Your task to perform on an android device: install app "DuckDuckGo Privacy Browser" Image 0: 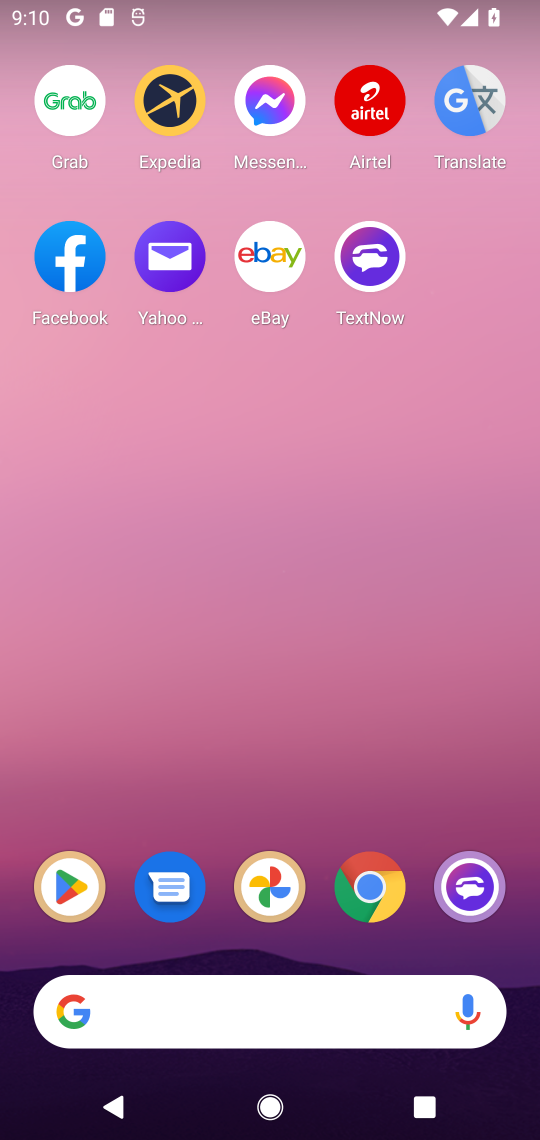
Step 0: click (69, 874)
Your task to perform on an android device: install app "DuckDuckGo Privacy Browser" Image 1: 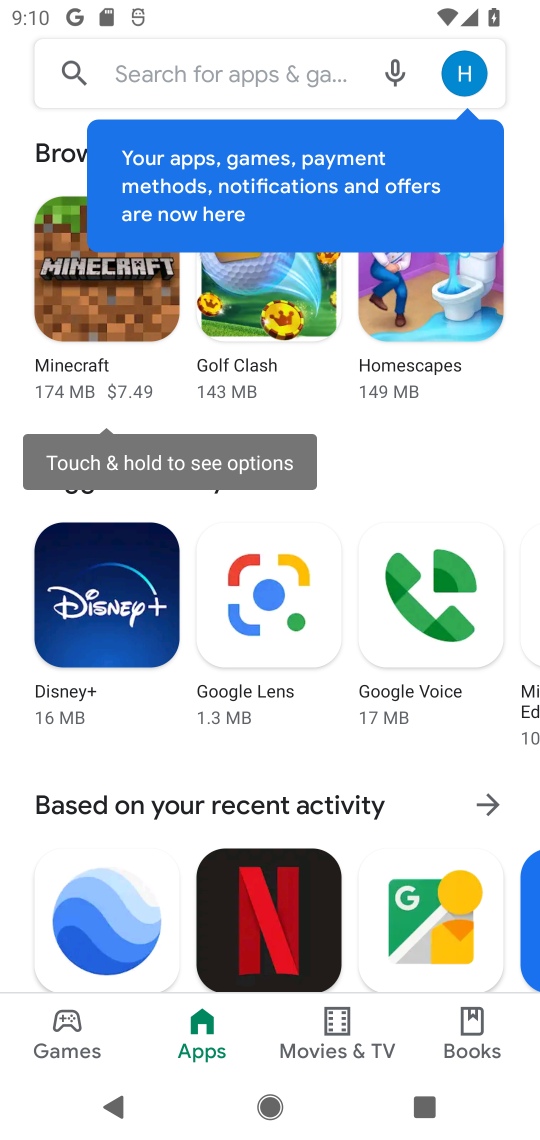
Step 1: click (221, 86)
Your task to perform on an android device: install app "DuckDuckGo Privacy Browser" Image 2: 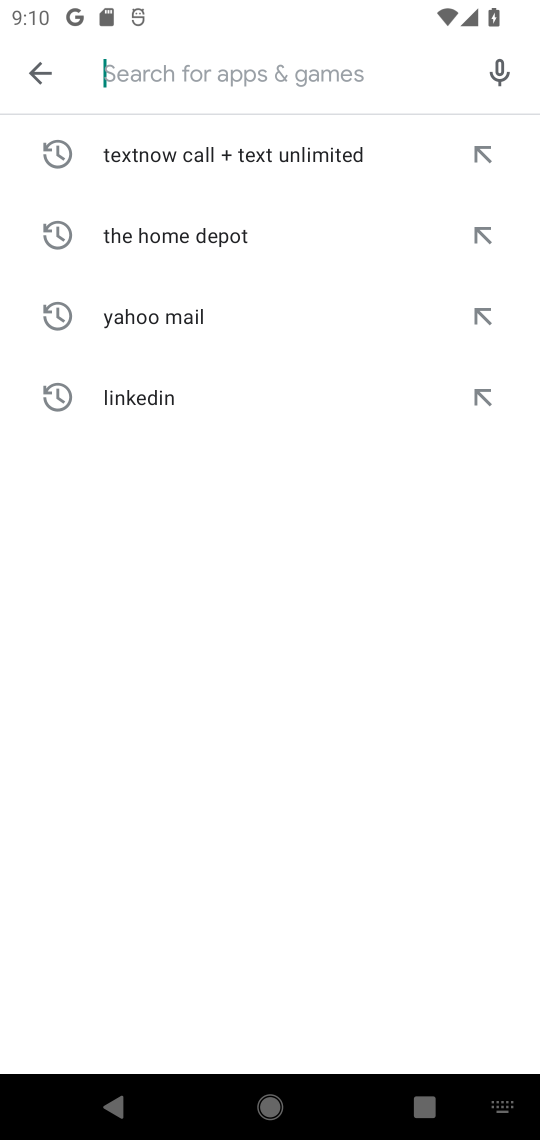
Step 2: type "DuckDuckGo privacy browser"
Your task to perform on an android device: install app "DuckDuckGo Privacy Browser" Image 3: 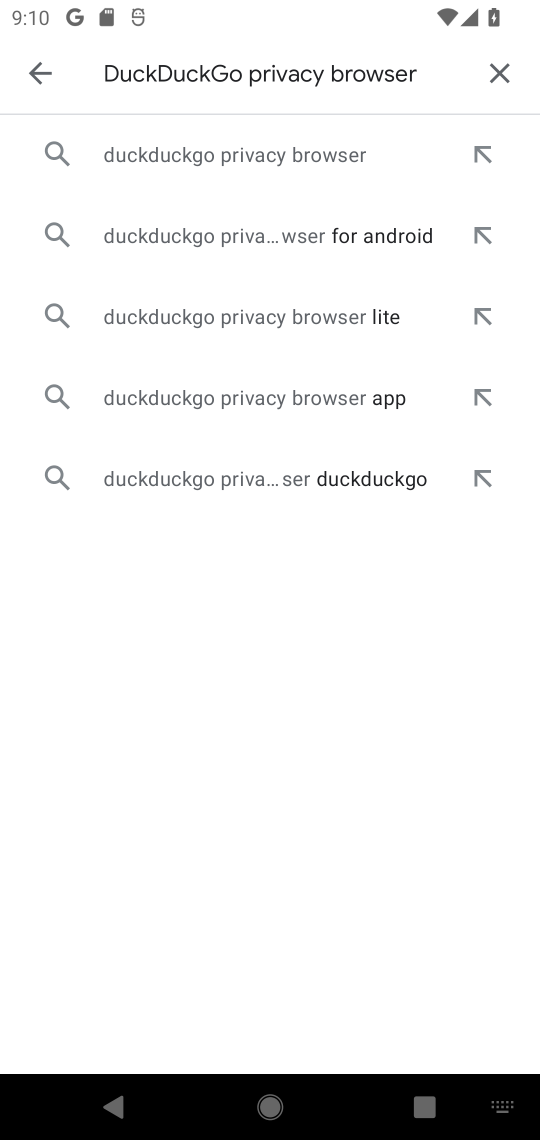
Step 3: click (196, 161)
Your task to perform on an android device: install app "DuckDuckGo Privacy Browser" Image 4: 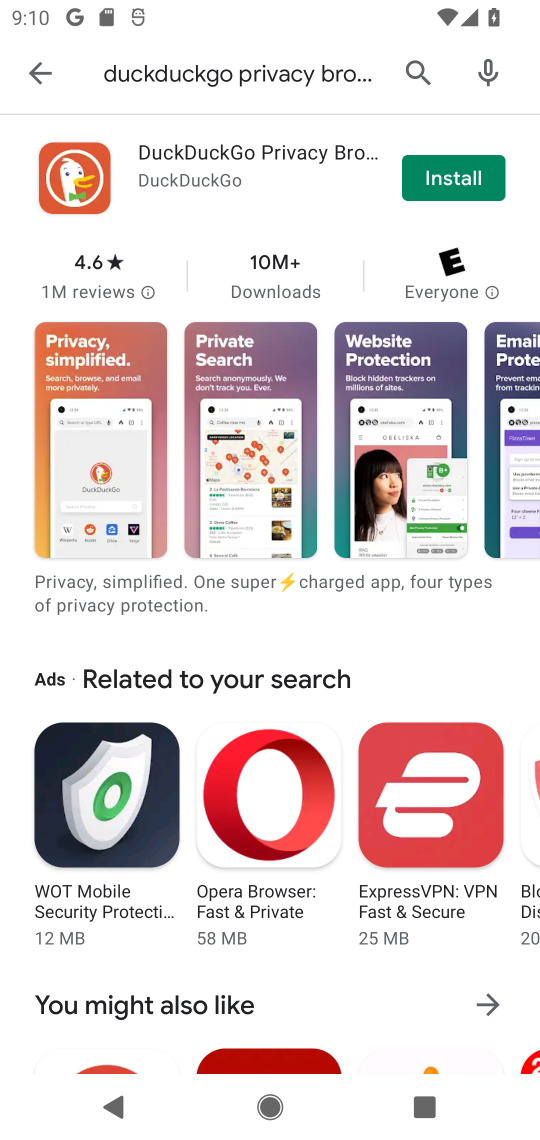
Step 4: click (279, 160)
Your task to perform on an android device: install app "DuckDuckGo Privacy Browser" Image 5: 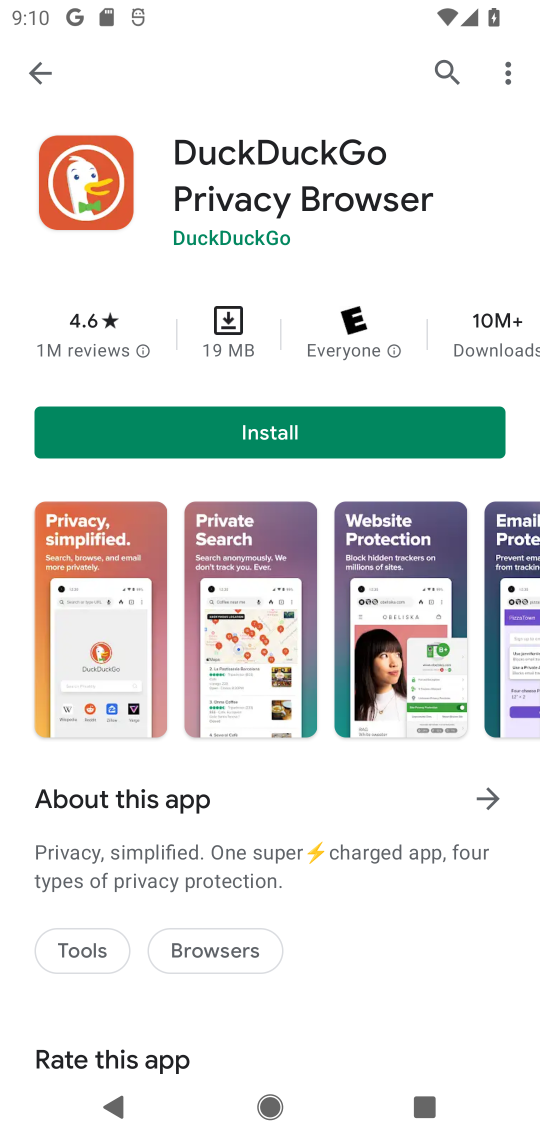
Step 5: click (154, 425)
Your task to perform on an android device: install app "DuckDuckGo Privacy Browser" Image 6: 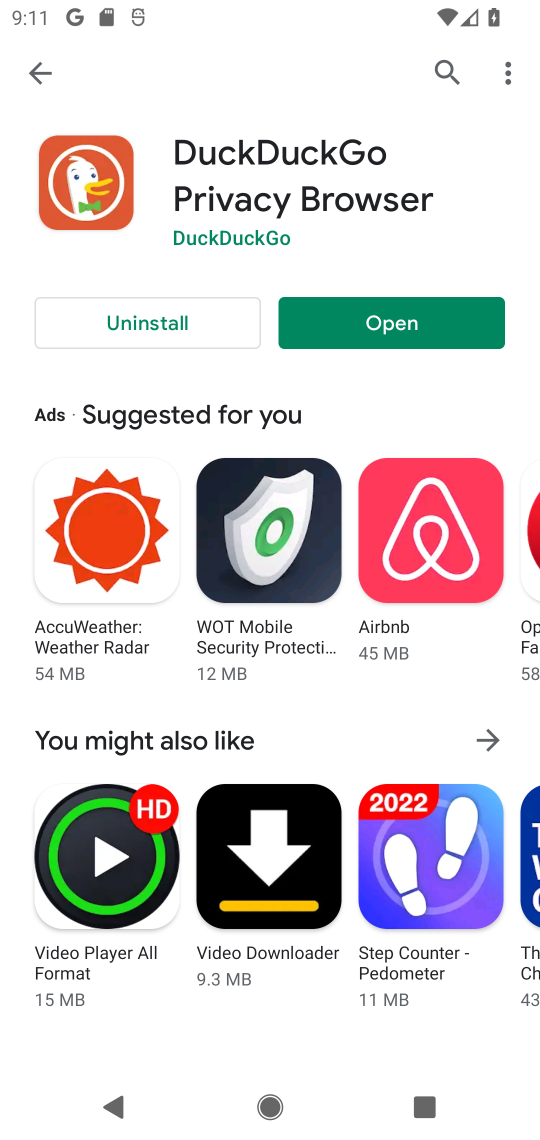
Step 6: task complete